Your task to perform on an android device: open chrome privacy settings Image 0: 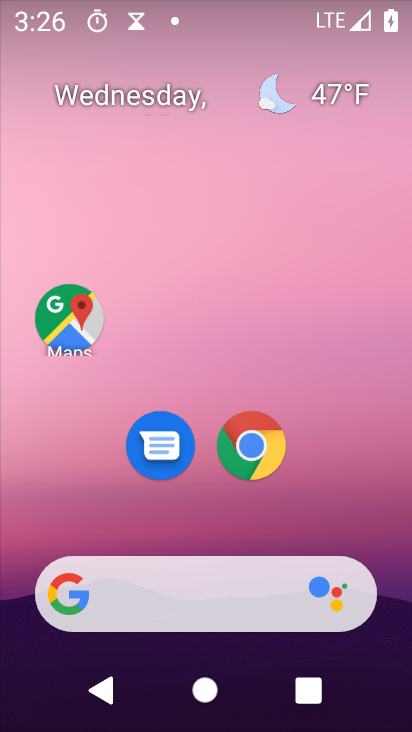
Step 0: click (260, 446)
Your task to perform on an android device: open chrome privacy settings Image 1: 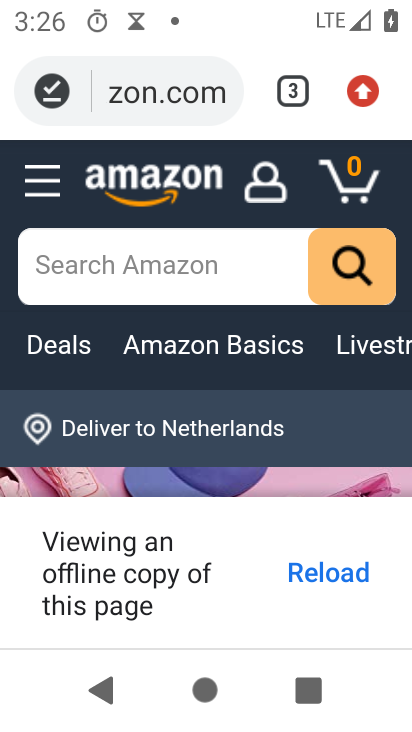
Step 1: click (362, 87)
Your task to perform on an android device: open chrome privacy settings Image 2: 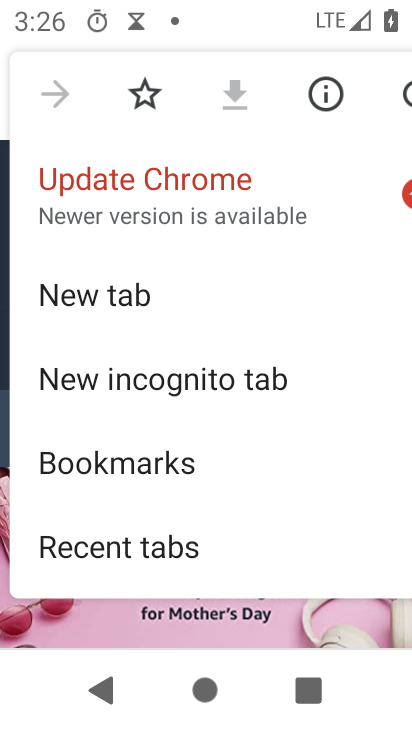
Step 2: drag from (220, 473) to (186, 119)
Your task to perform on an android device: open chrome privacy settings Image 3: 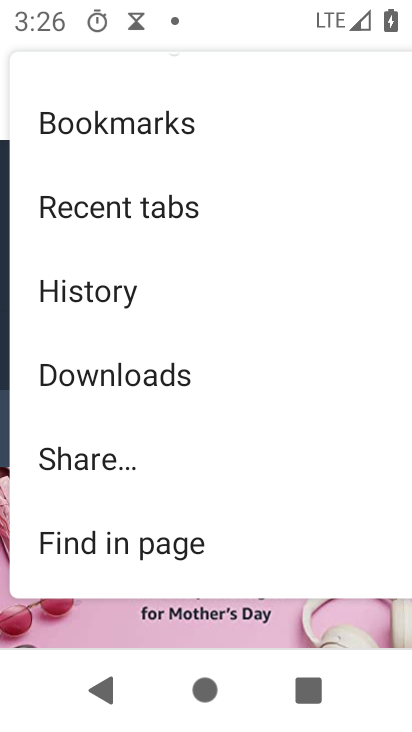
Step 3: drag from (242, 472) to (242, 169)
Your task to perform on an android device: open chrome privacy settings Image 4: 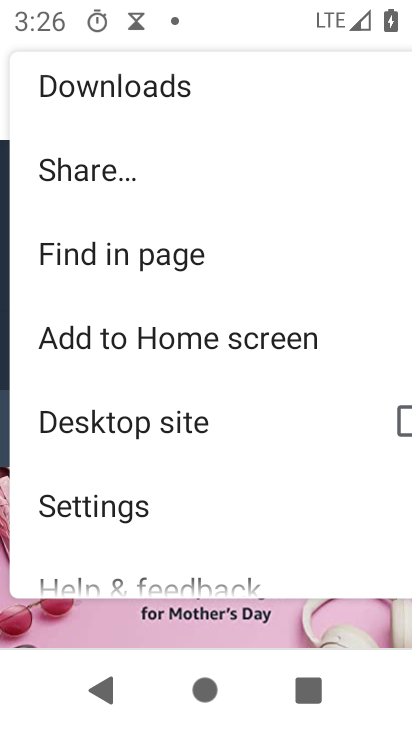
Step 4: click (89, 499)
Your task to perform on an android device: open chrome privacy settings Image 5: 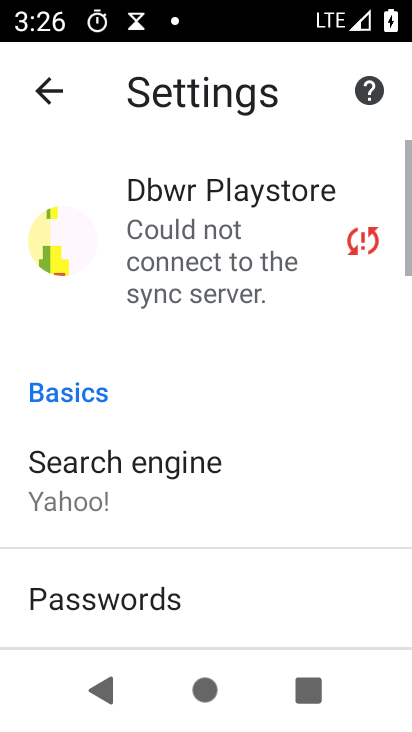
Step 5: drag from (263, 493) to (237, 181)
Your task to perform on an android device: open chrome privacy settings Image 6: 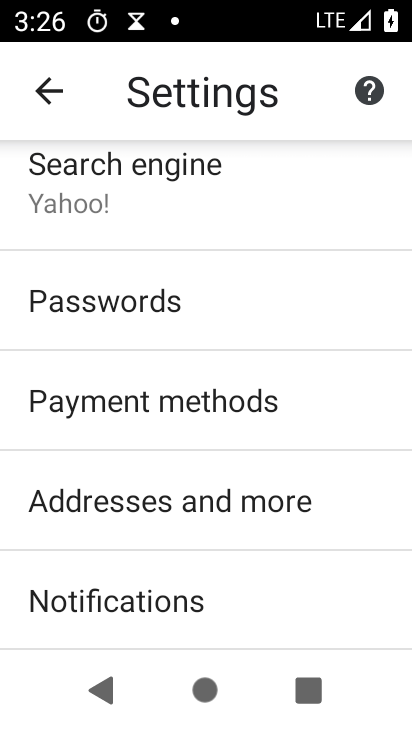
Step 6: drag from (258, 561) to (250, 178)
Your task to perform on an android device: open chrome privacy settings Image 7: 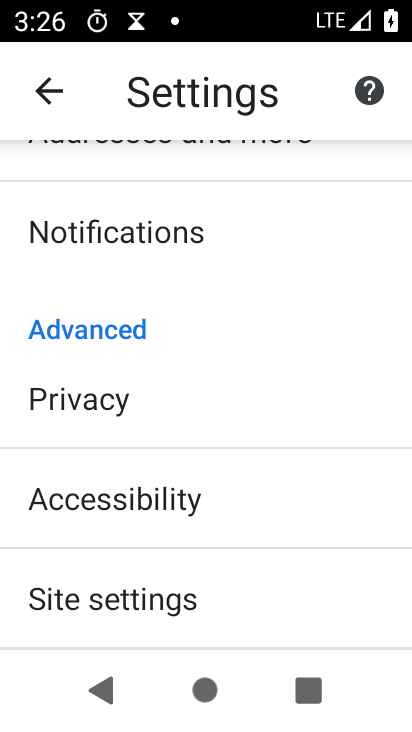
Step 7: click (80, 410)
Your task to perform on an android device: open chrome privacy settings Image 8: 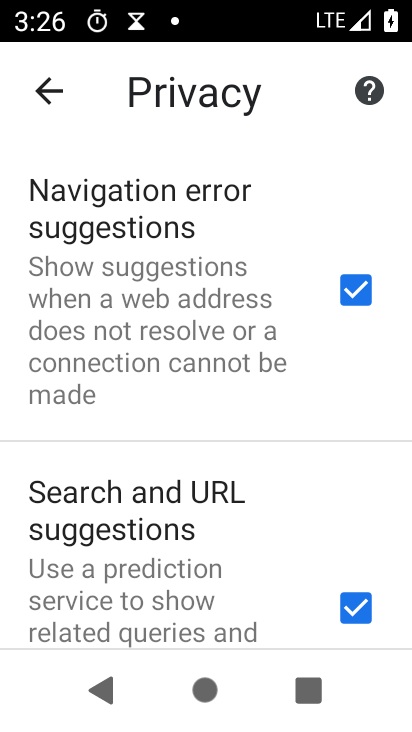
Step 8: task complete